Your task to perform on an android device: turn off javascript in the chrome app Image 0: 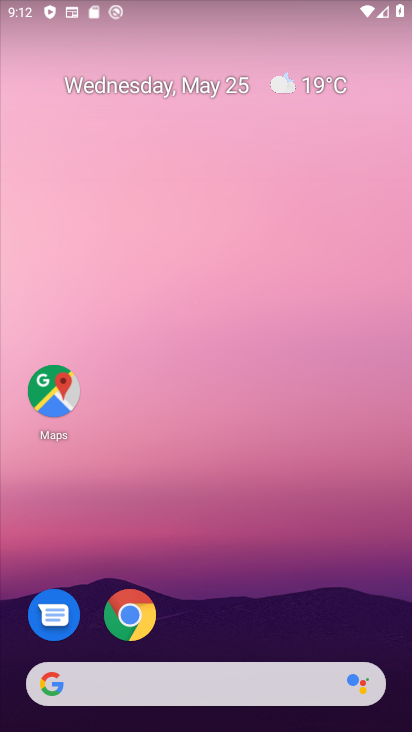
Step 0: press home button
Your task to perform on an android device: turn off javascript in the chrome app Image 1: 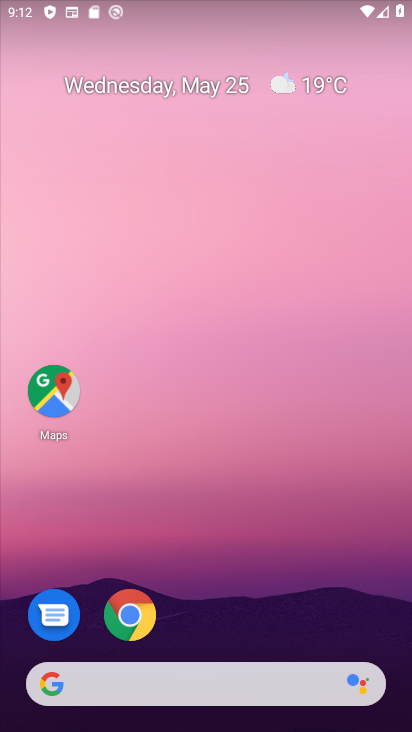
Step 1: drag from (209, 712) to (194, 131)
Your task to perform on an android device: turn off javascript in the chrome app Image 2: 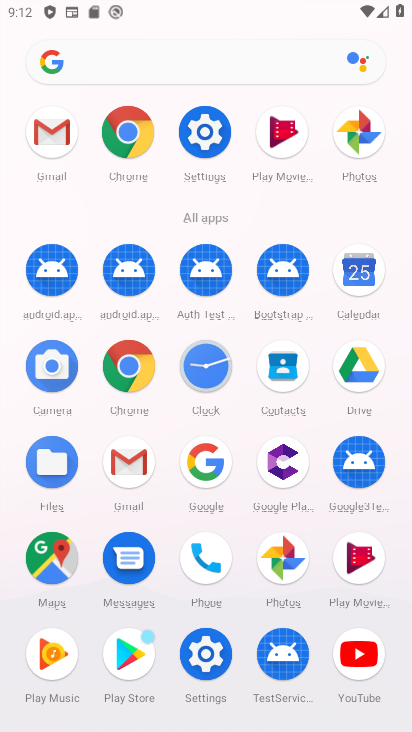
Step 2: click (144, 155)
Your task to perform on an android device: turn off javascript in the chrome app Image 3: 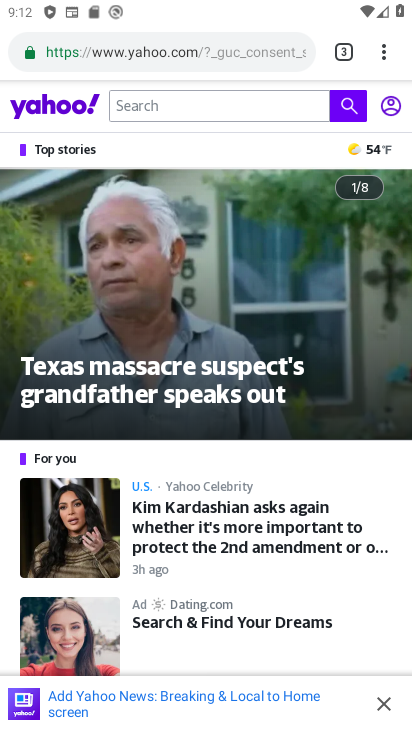
Step 3: click (375, 51)
Your task to perform on an android device: turn off javascript in the chrome app Image 4: 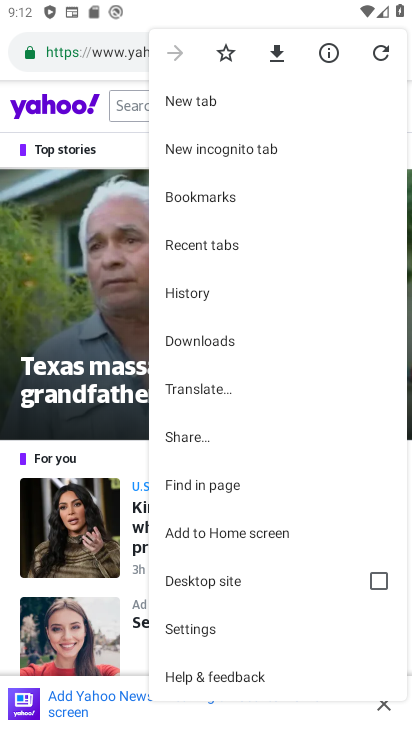
Step 4: click (186, 628)
Your task to perform on an android device: turn off javascript in the chrome app Image 5: 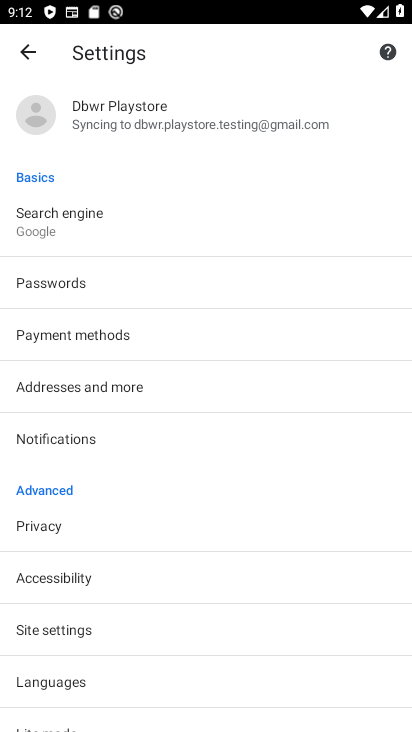
Step 5: click (61, 630)
Your task to perform on an android device: turn off javascript in the chrome app Image 6: 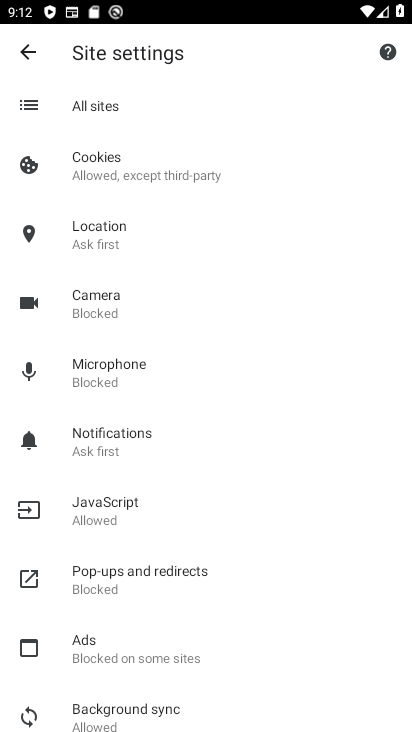
Step 6: click (147, 511)
Your task to perform on an android device: turn off javascript in the chrome app Image 7: 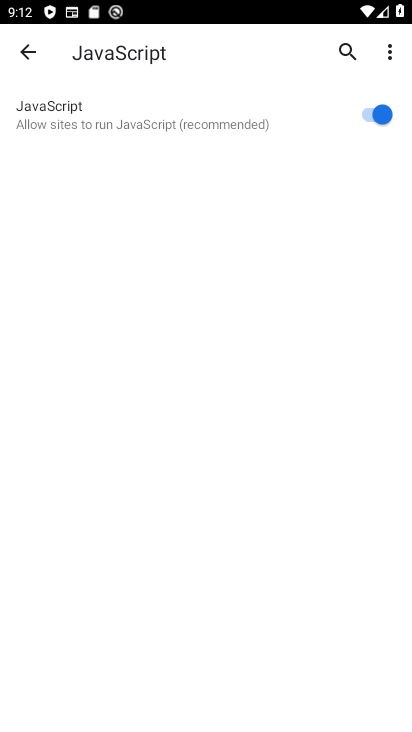
Step 7: click (378, 114)
Your task to perform on an android device: turn off javascript in the chrome app Image 8: 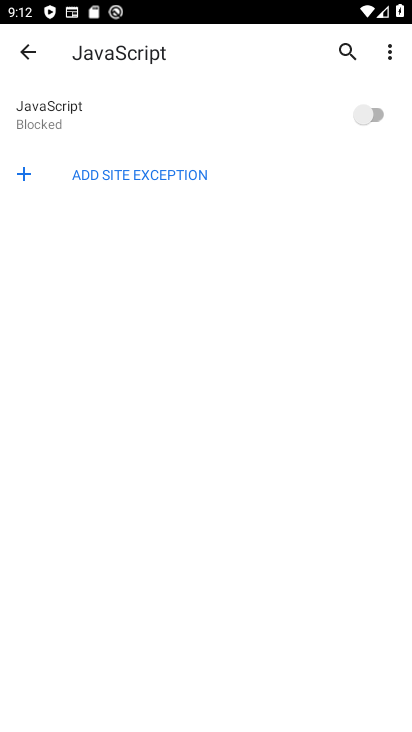
Step 8: task complete